Your task to perform on an android device: What's the weather like inToronto? Image 0: 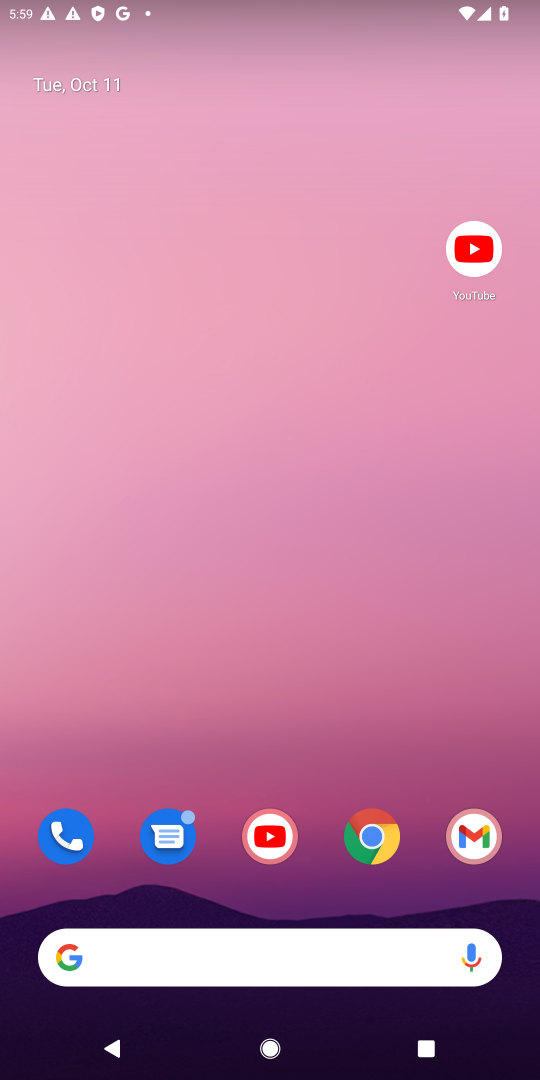
Step 0: click (366, 840)
Your task to perform on an android device: What's the weather like inToronto? Image 1: 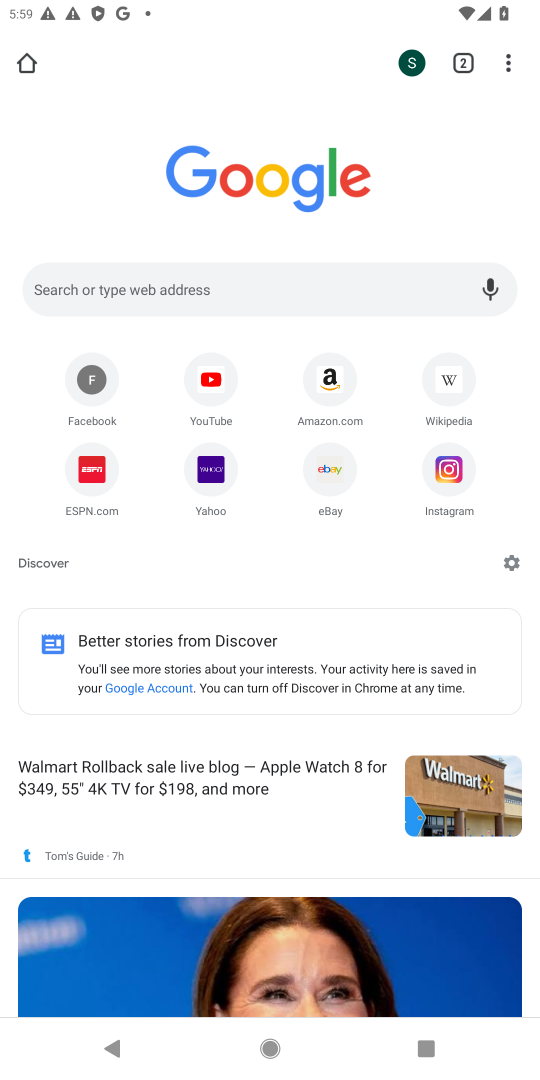
Step 1: click (275, 291)
Your task to perform on an android device: What's the weather like inToronto? Image 2: 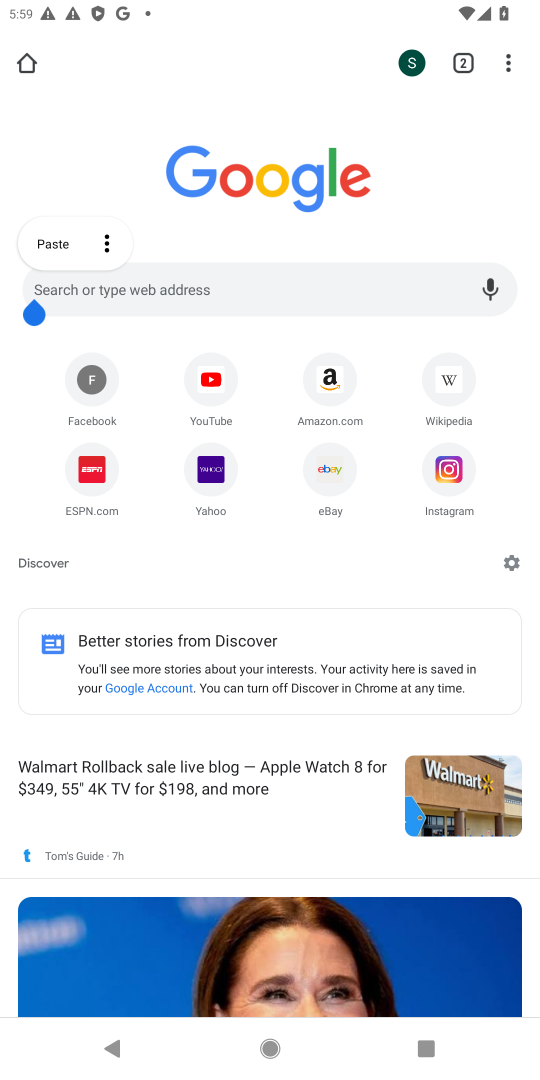
Step 2: click (138, 278)
Your task to perform on an android device: What's the weather like inToronto? Image 3: 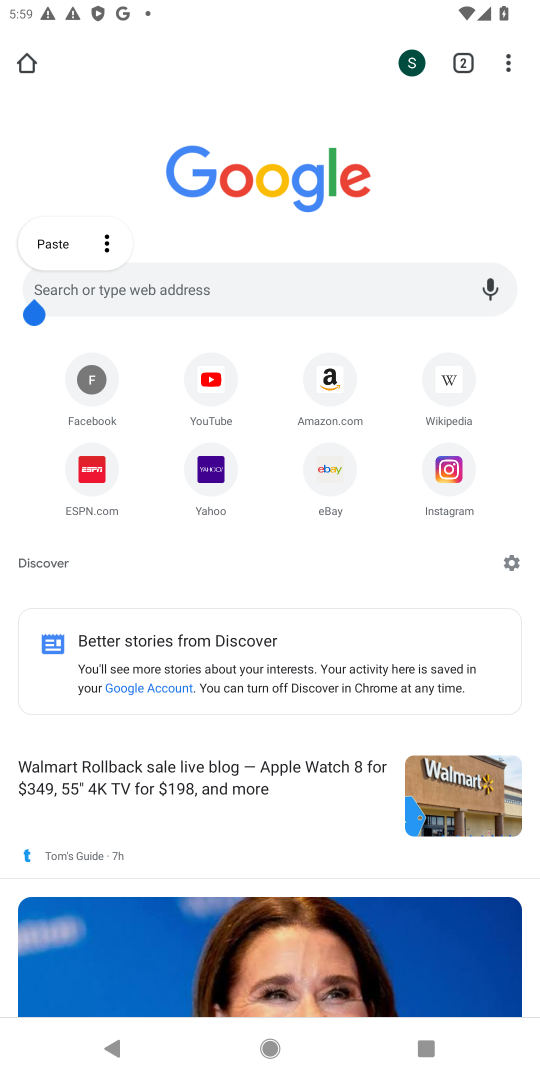
Step 3: click (154, 287)
Your task to perform on an android device: What's the weather like inToronto? Image 4: 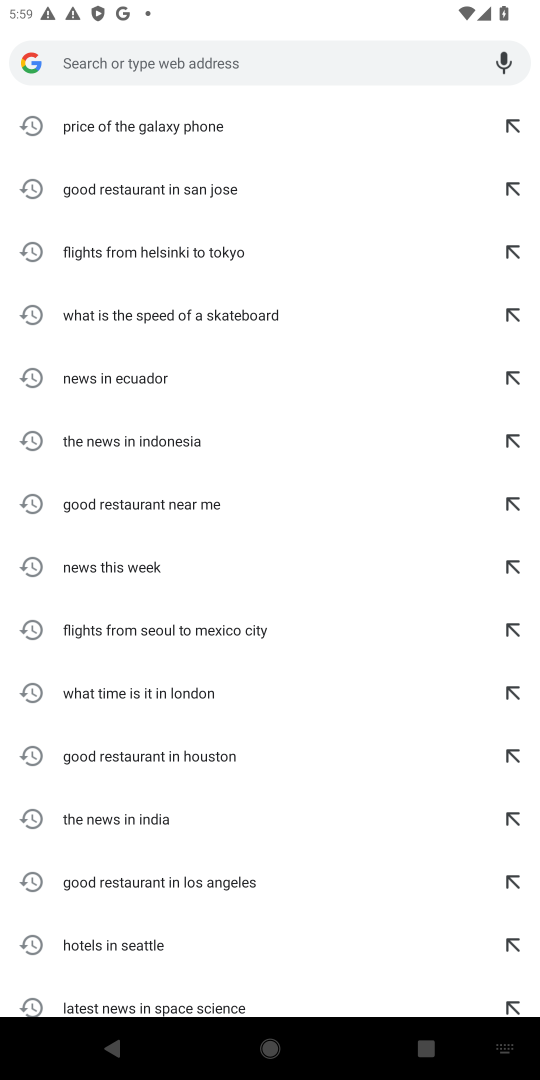
Step 4: type "weather like inToronto"
Your task to perform on an android device: What's the weather like inToronto? Image 5: 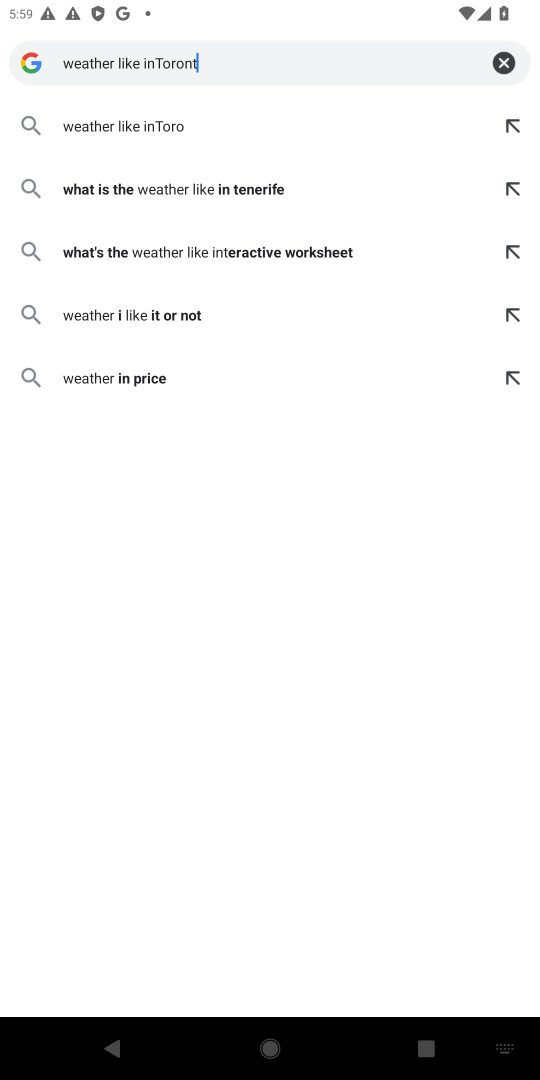
Step 5: press enter
Your task to perform on an android device: What's the weather like inToronto? Image 6: 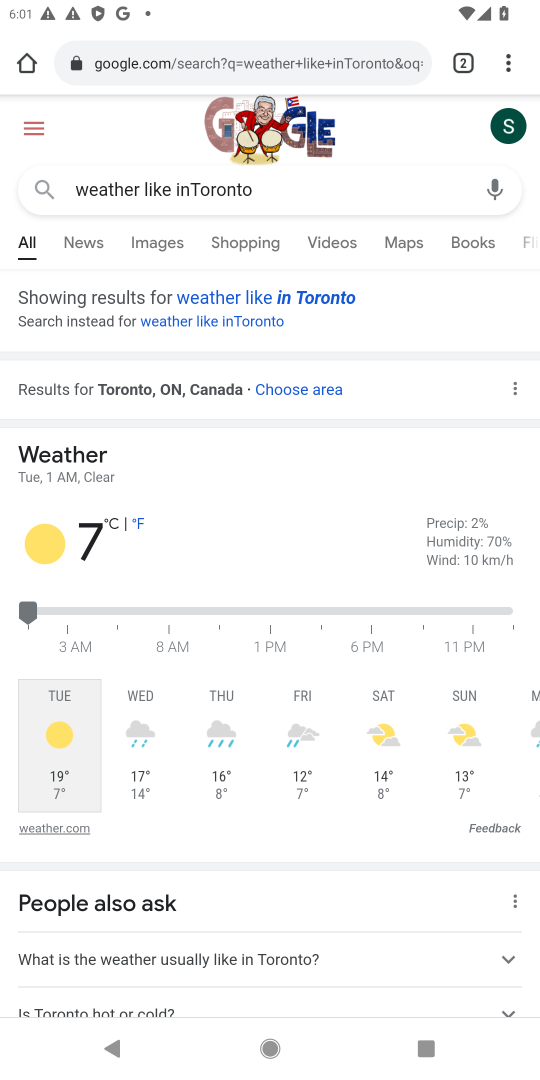
Step 6: task complete